Your task to perform on an android device: toggle location history Image 0: 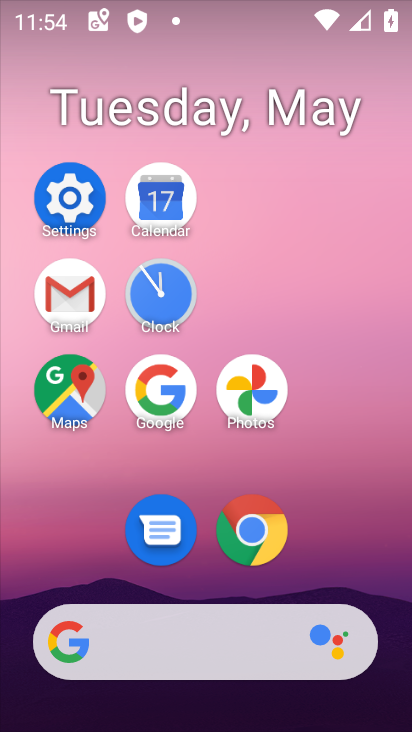
Step 0: click (81, 217)
Your task to perform on an android device: toggle location history Image 1: 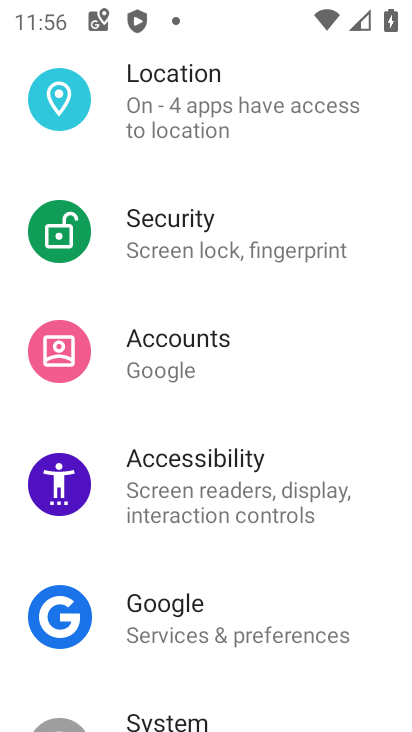
Step 1: drag from (280, 559) to (297, 231)
Your task to perform on an android device: toggle location history Image 2: 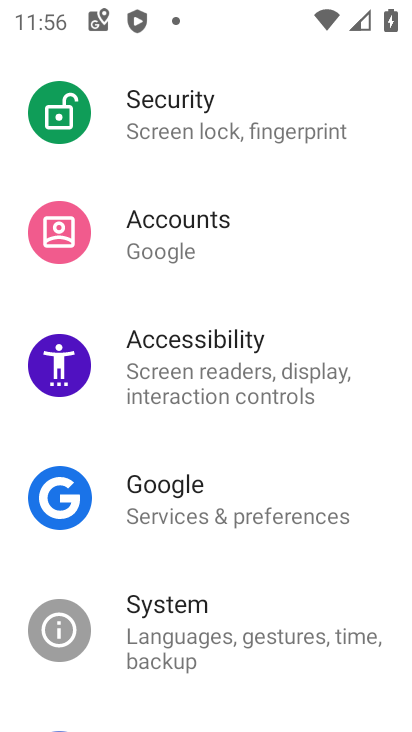
Step 2: drag from (258, 134) to (301, 488)
Your task to perform on an android device: toggle location history Image 3: 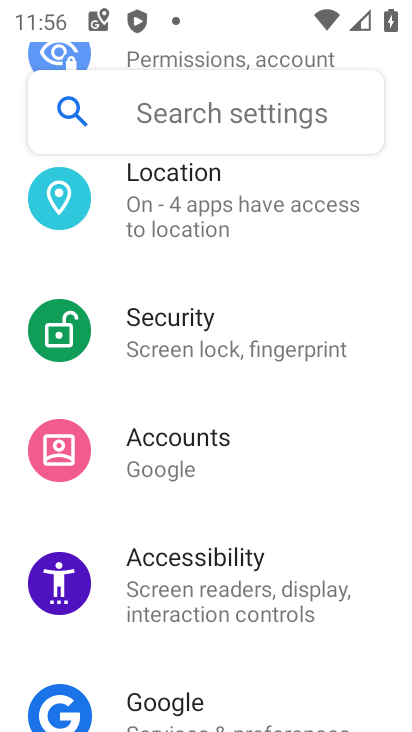
Step 3: click (227, 193)
Your task to perform on an android device: toggle location history Image 4: 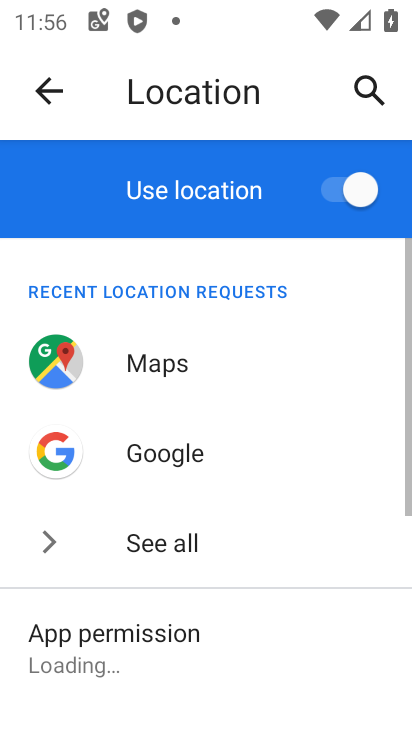
Step 4: drag from (283, 526) to (269, 161)
Your task to perform on an android device: toggle location history Image 5: 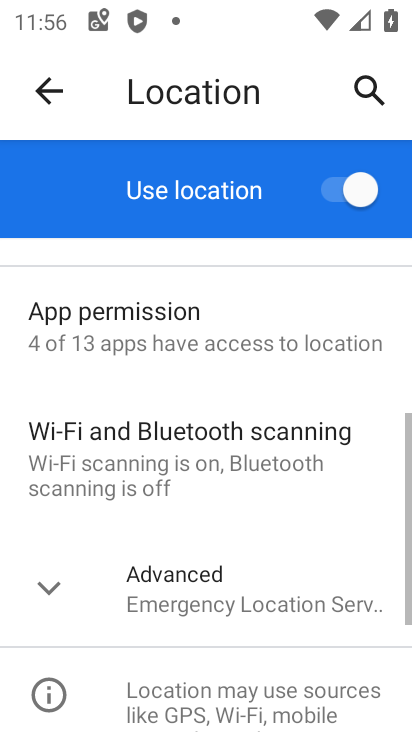
Step 5: click (309, 581)
Your task to perform on an android device: toggle location history Image 6: 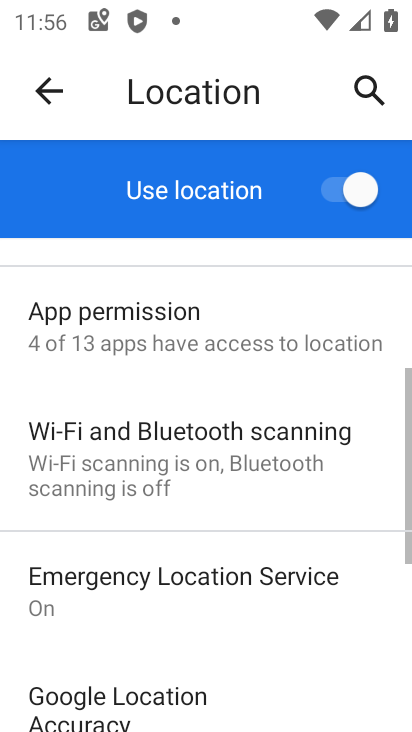
Step 6: drag from (309, 580) to (280, 195)
Your task to perform on an android device: toggle location history Image 7: 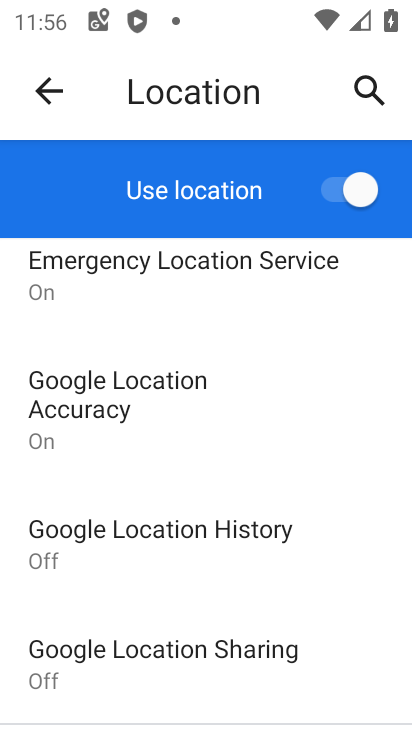
Step 7: click (294, 512)
Your task to perform on an android device: toggle location history Image 8: 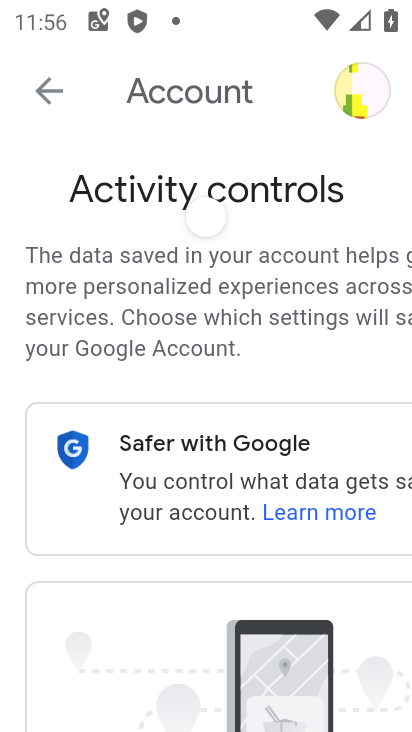
Step 8: drag from (279, 470) to (267, 101)
Your task to perform on an android device: toggle location history Image 9: 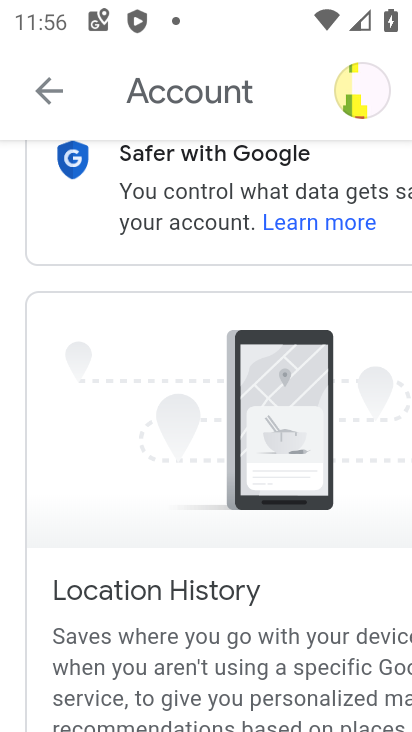
Step 9: drag from (295, 523) to (317, 118)
Your task to perform on an android device: toggle location history Image 10: 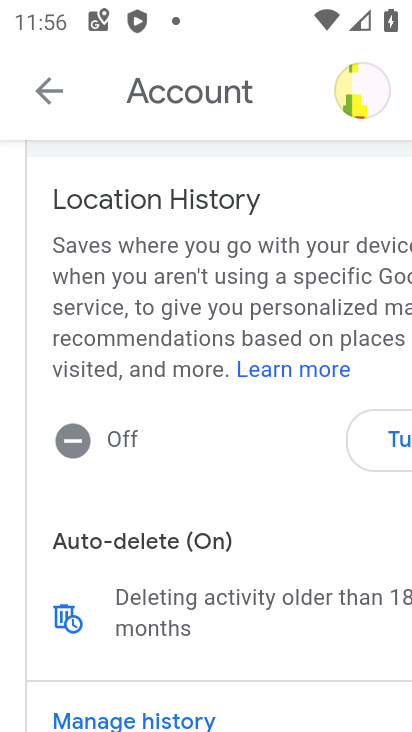
Step 10: click (364, 448)
Your task to perform on an android device: toggle location history Image 11: 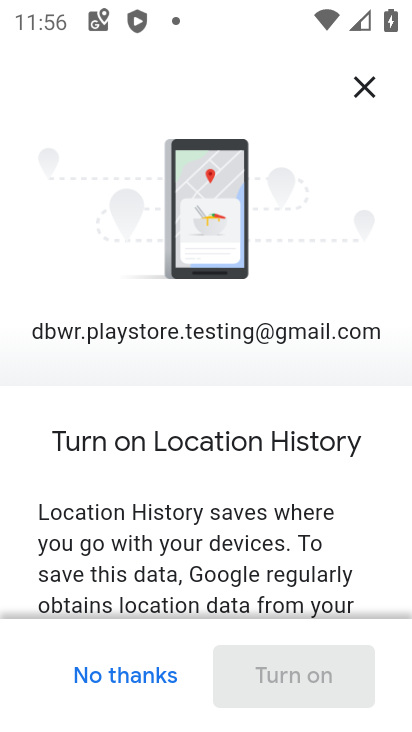
Step 11: drag from (280, 552) to (296, 112)
Your task to perform on an android device: toggle location history Image 12: 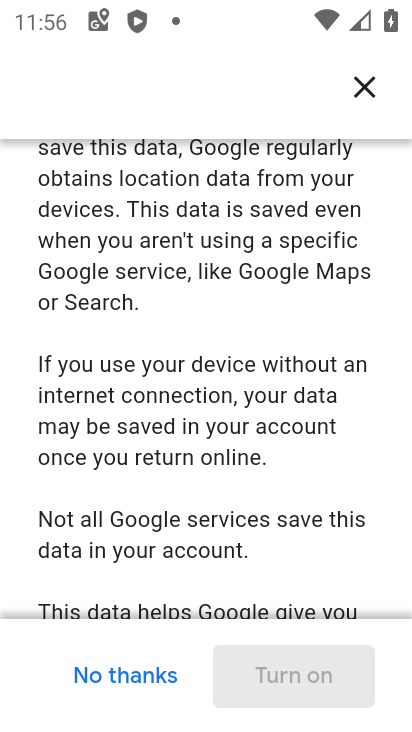
Step 12: drag from (279, 520) to (293, 117)
Your task to perform on an android device: toggle location history Image 13: 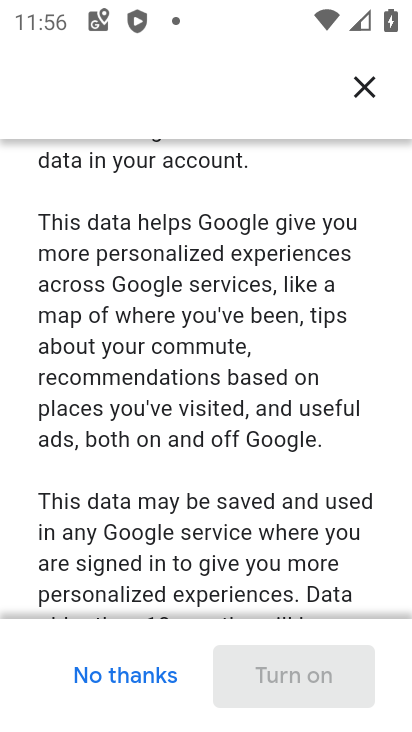
Step 13: drag from (294, 538) to (291, 137)
Your task to perform on an android device: toggle location history Image 14: 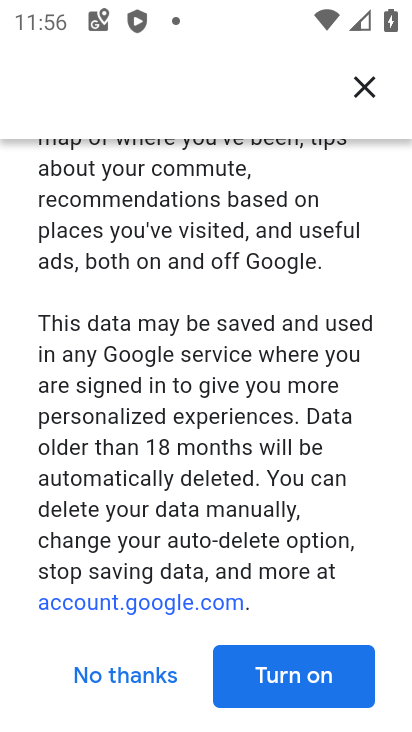
Step 14: click (302, 666)
Your task to perform on an android device: toggle location history Image 15: 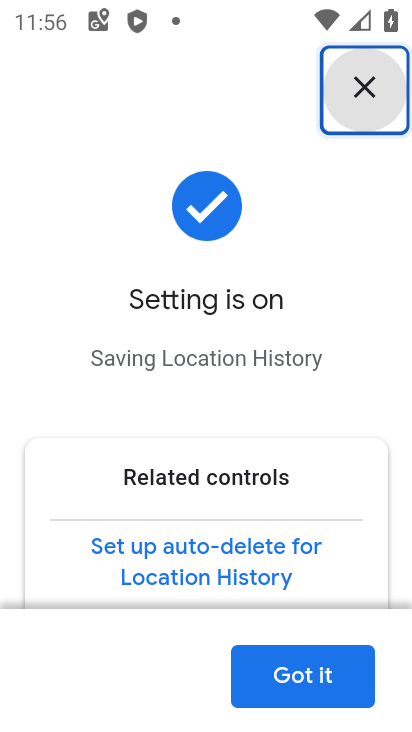
Step 15: click (302, 666)
Your task to perform on an android device: toggle location history Image 16: 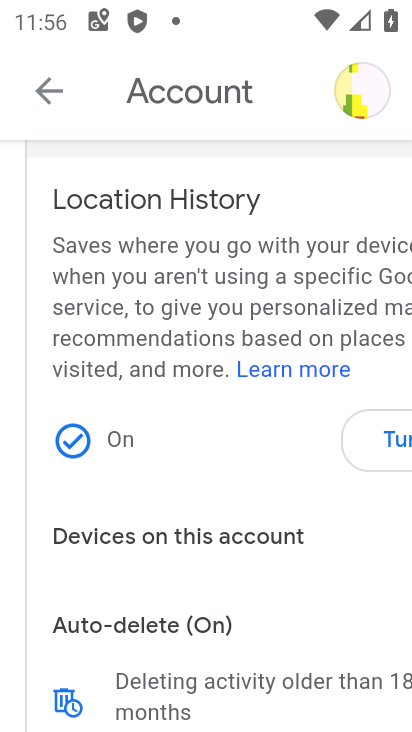
Step 16: task complete